Your task to perform on an android device: Toggle the flashlight Image 0: 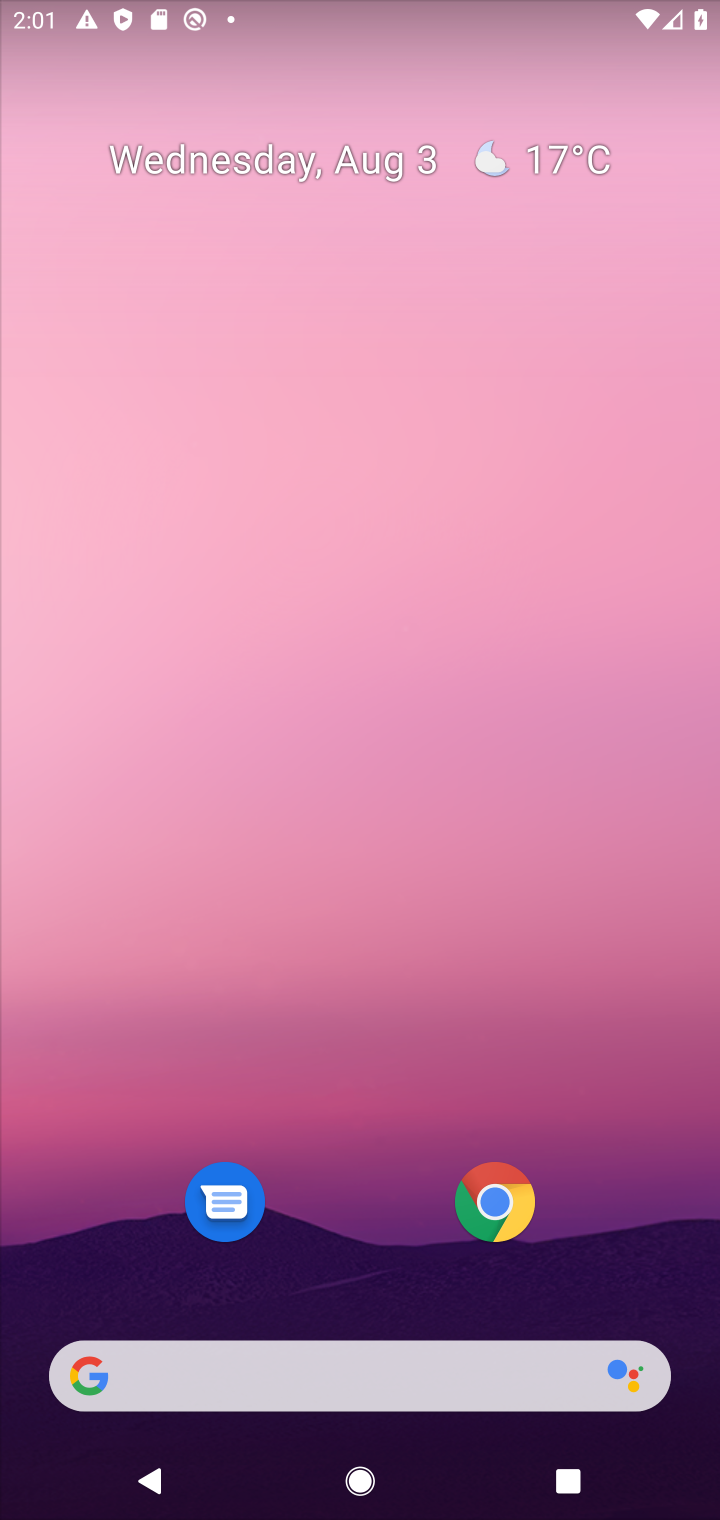
Step 0: drag from (329, 1201) to (476, 53)
Your task to perform on an android device: Toggle the flashlight Image 1: 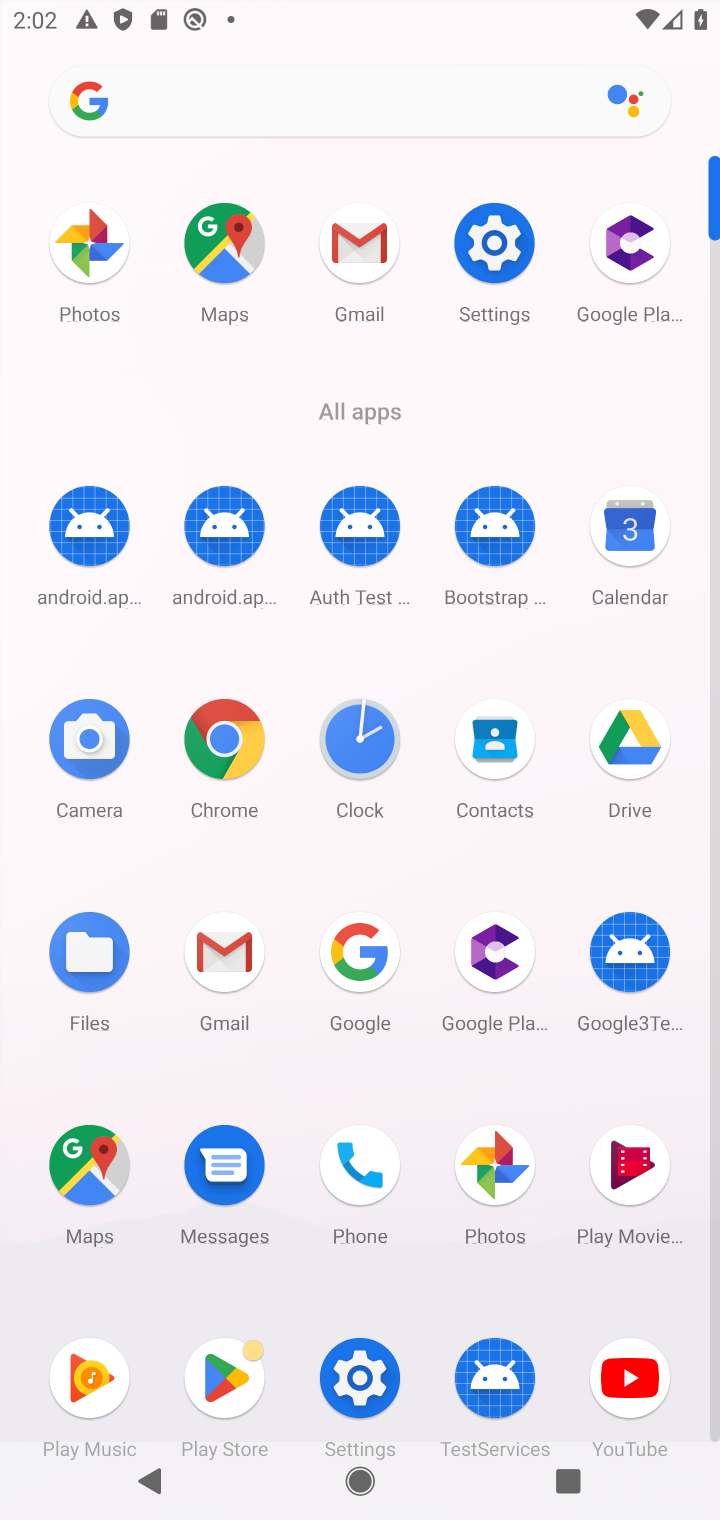
Step 1: click (517, 243)
Your task to perform on an android device: Toggle the flashlight Image 2: 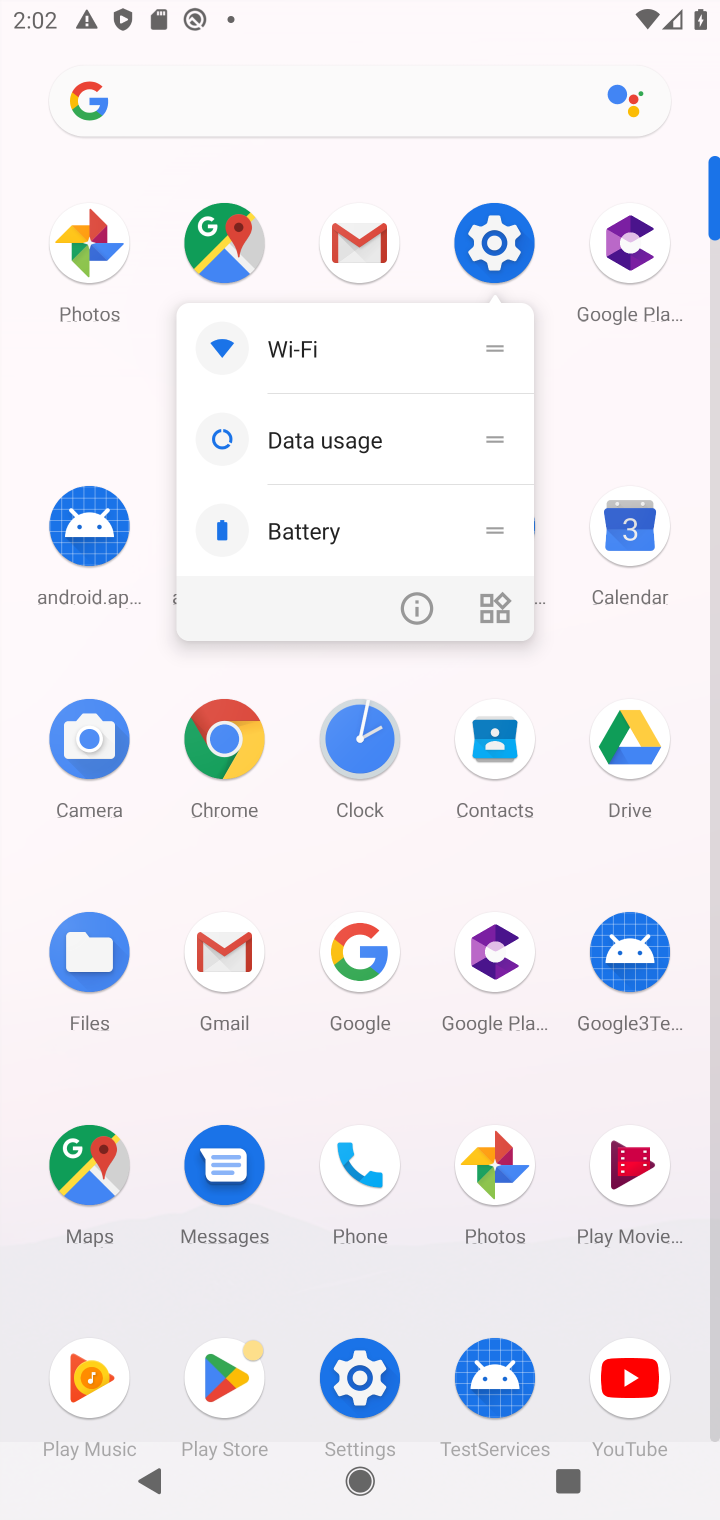
Step 2: click (489, 231)
Your task to perform on an android device: Toggle the flashlight Image 3: 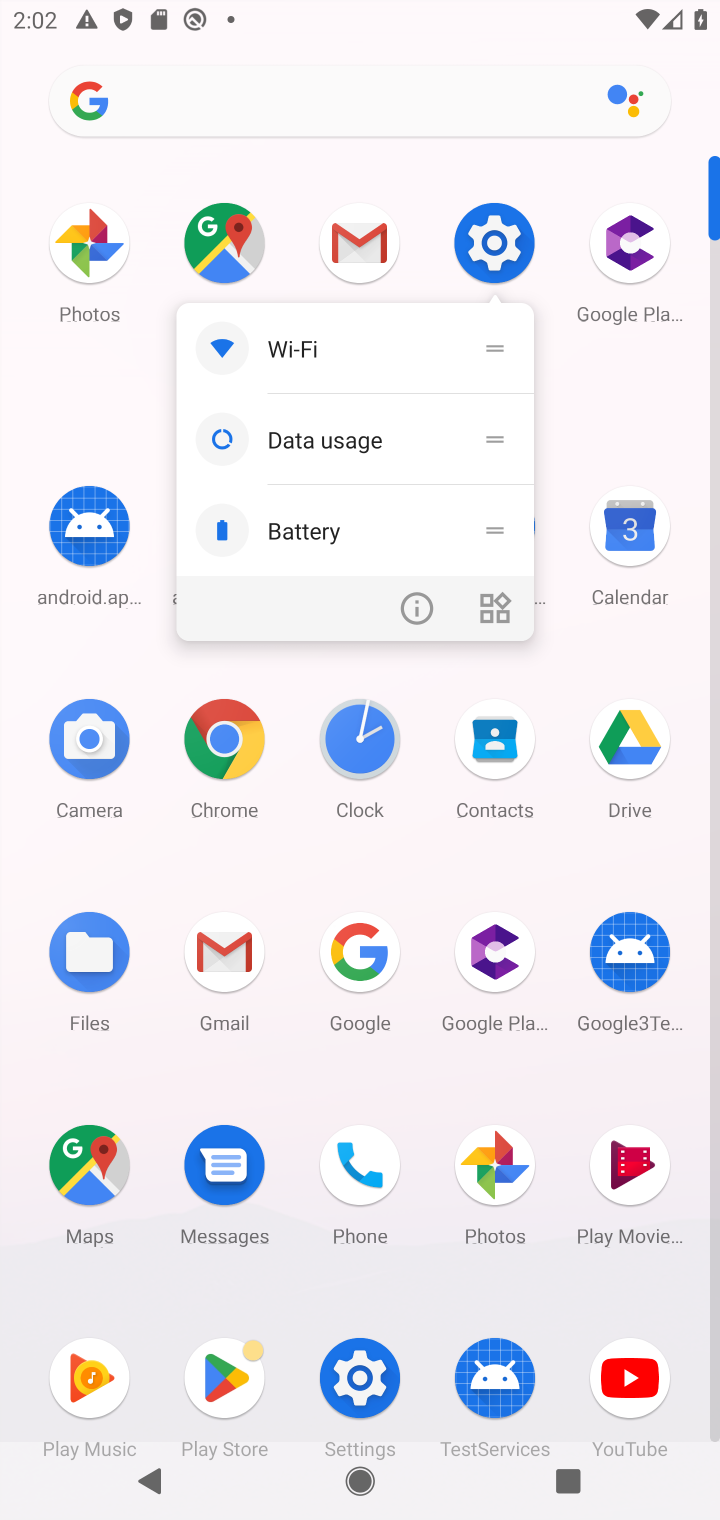
Step 3: click (513, 229)
Your task to perform on an android device: Toggle the flashlight Image 4: 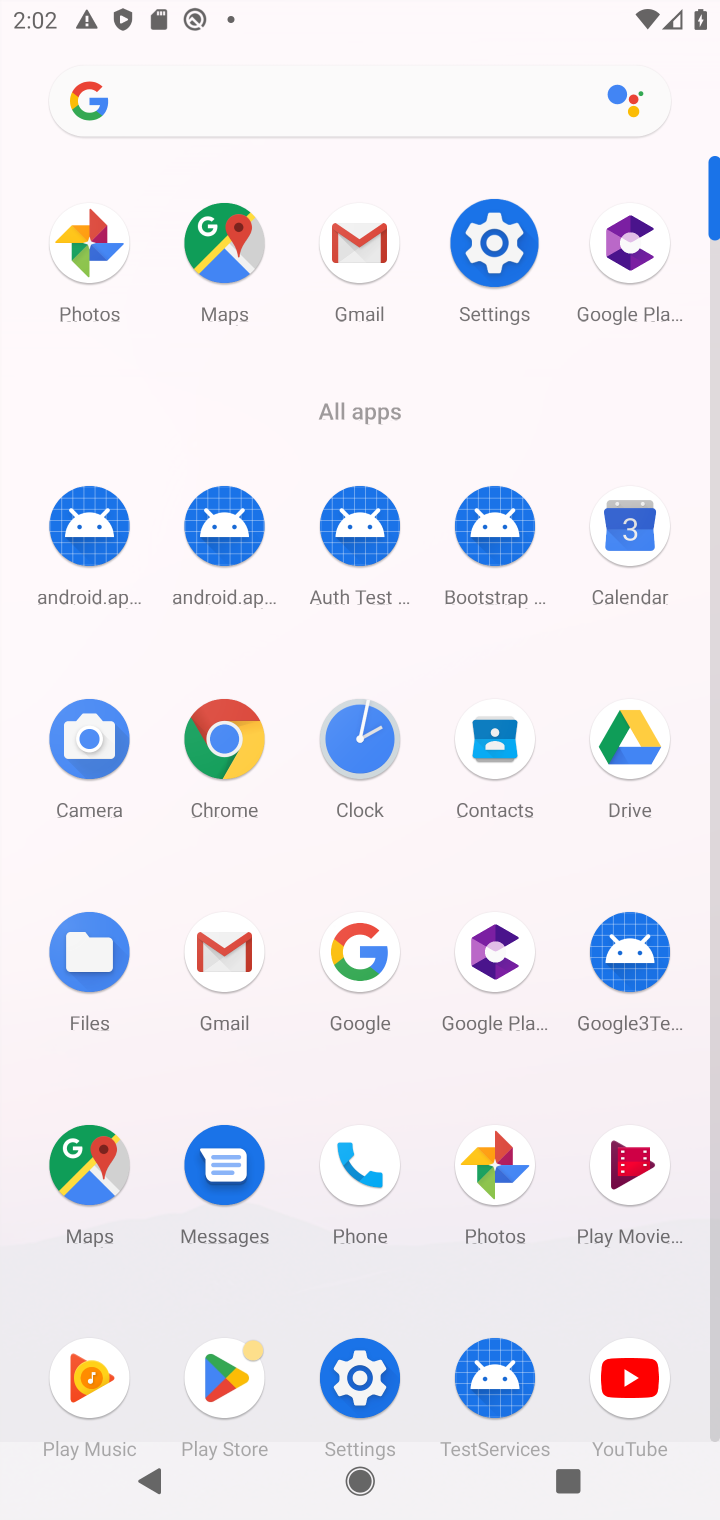
Step 4: click (520, 225)
Your task to perform on an android device: Toggle the flashlight Image 5: 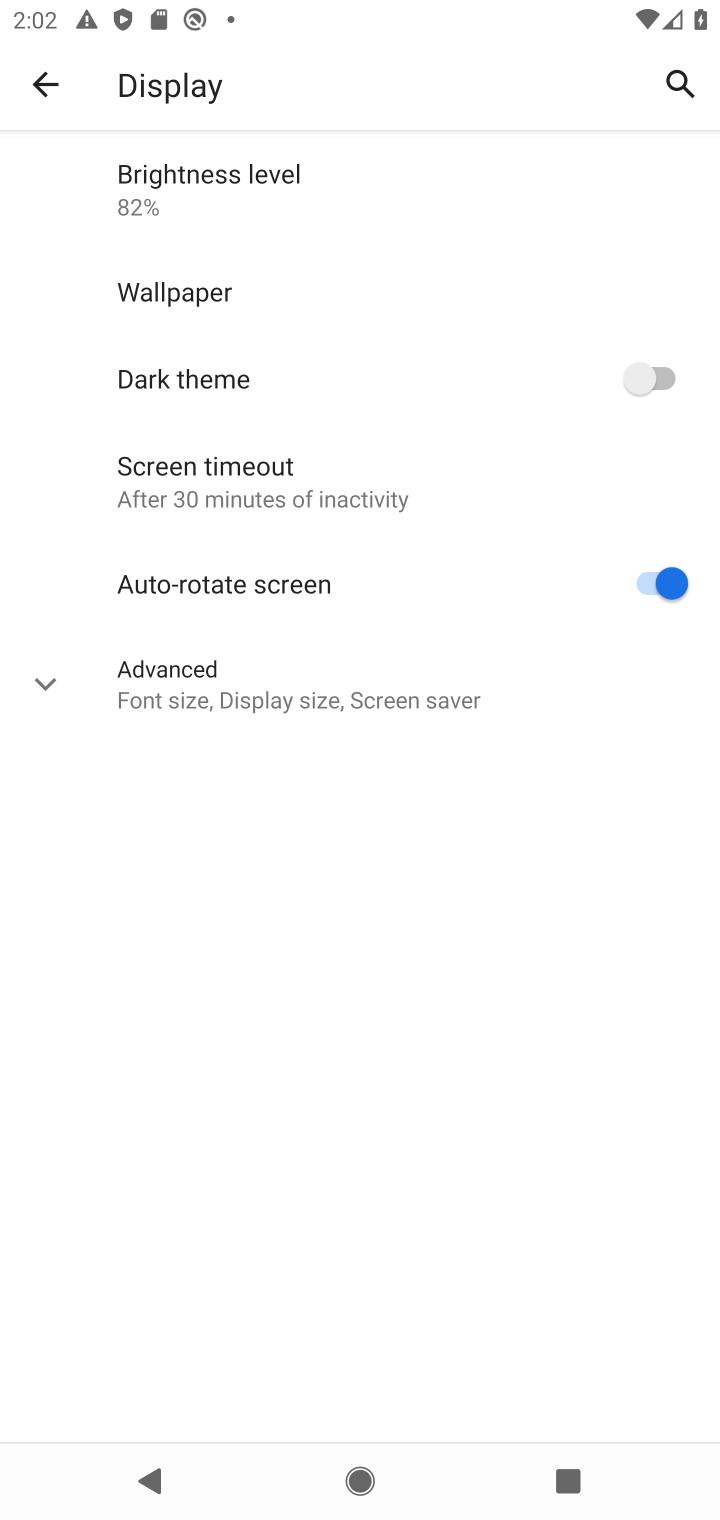
Step 5: click (60, 72)
Your task to perform on an android device: Toggle the flashlight Image 6: 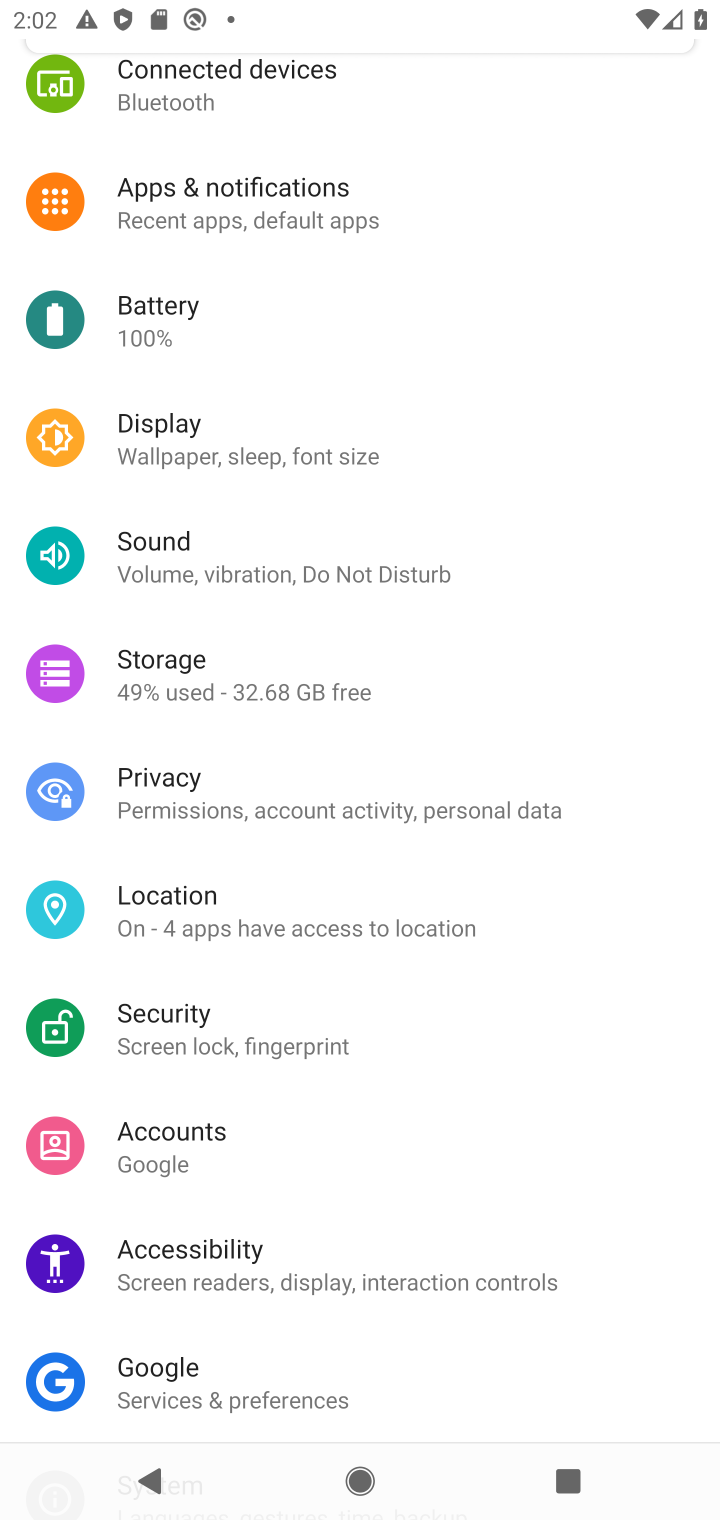
Step 6: drag from (398, 244) to (421, 1331)
Your task to perform on an android device: Toggle the flashlight Image 7: 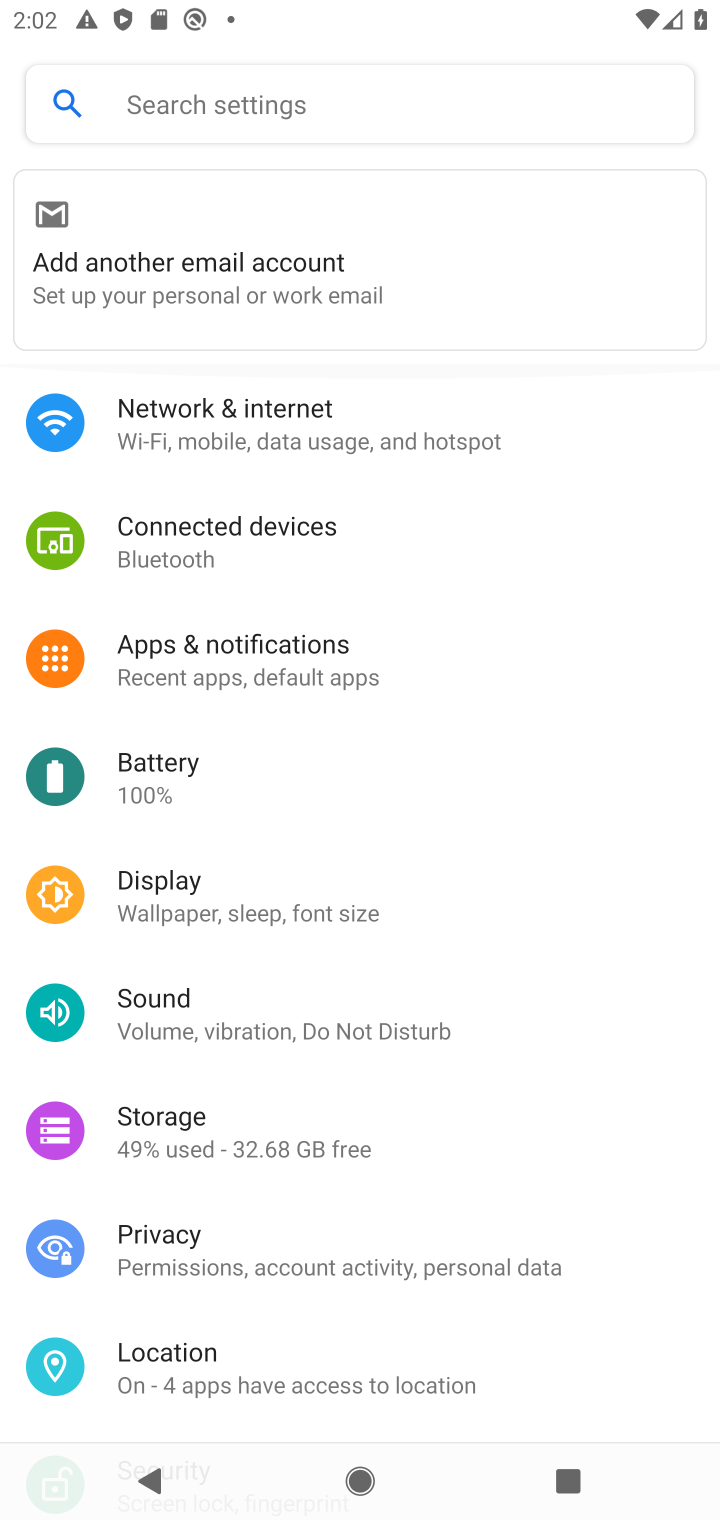
Step 7: click (252, 98)
Your task to perform on an android device: Toggle the flashlight Image 8: 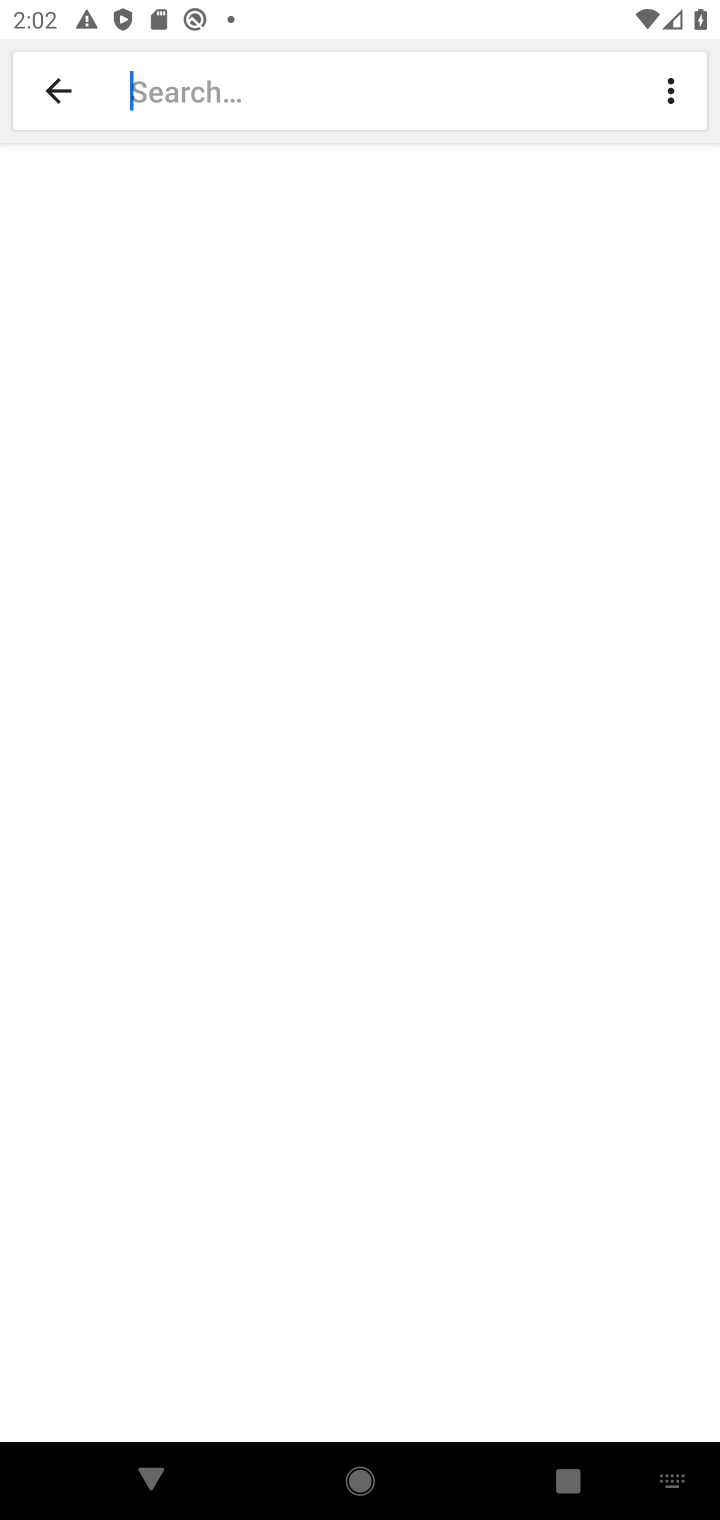
Step 8: type "flashlight"
Your task to perform on an android device: Toggle the flashlight Image 9: 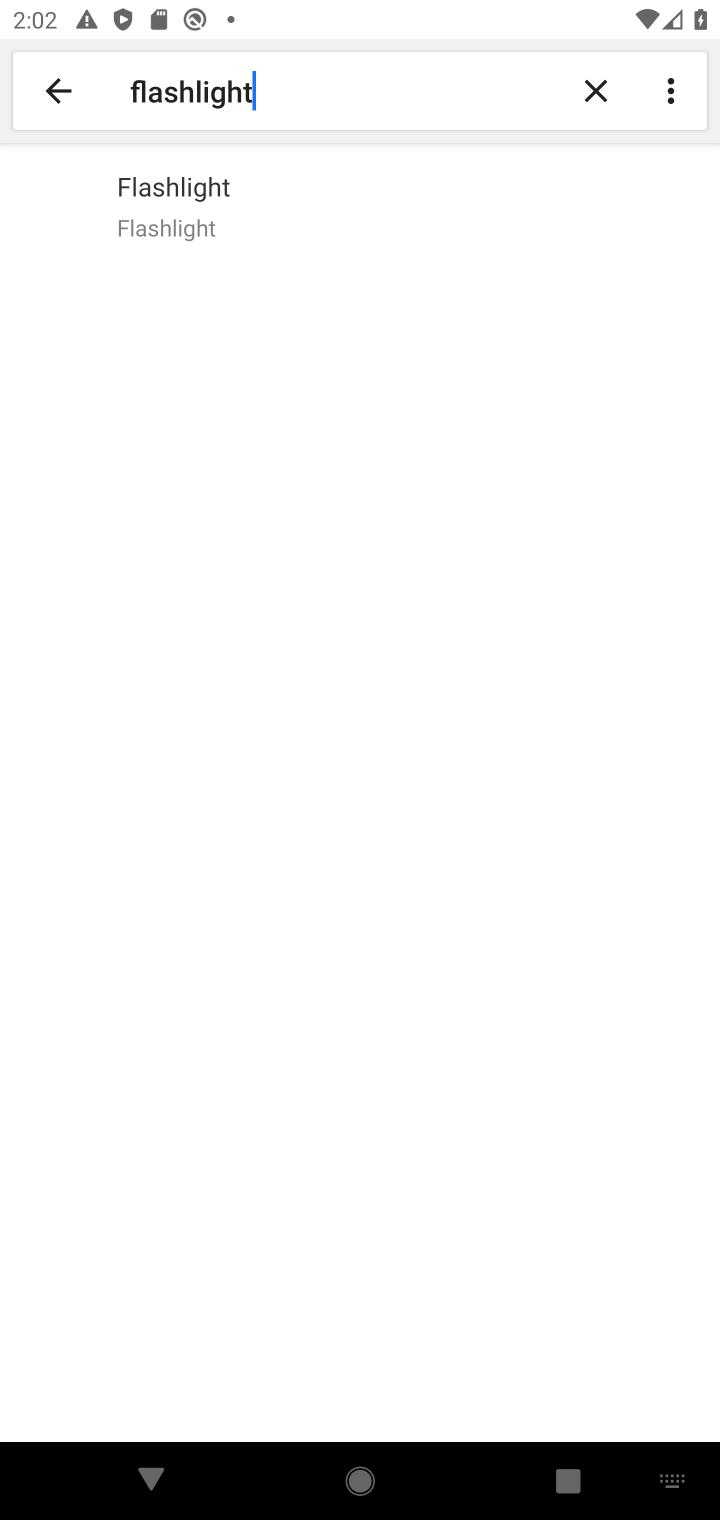
Step 9: task complete